Your task to perform on an android device: see tabs open on other devices in the chrome app Image 0: 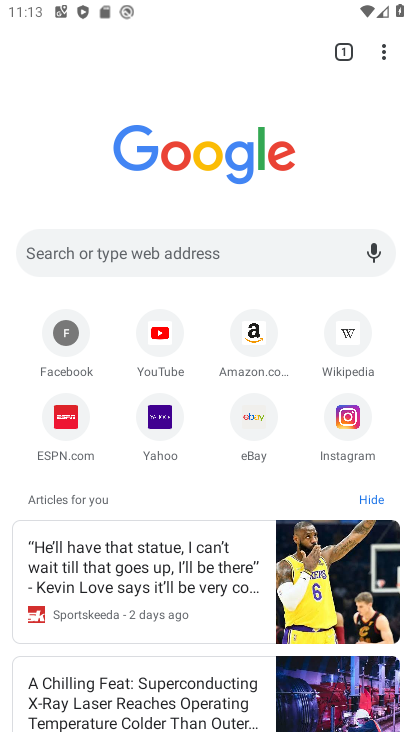
Step 0: click (385, 60)
Your task to perform on an android device: see tabs open on other devices in the chrome app Image 1: 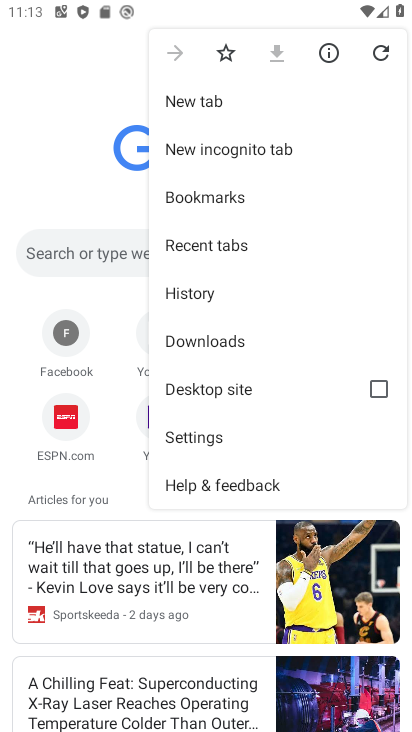
Step 1: click (204, 238)
Your task to perform on an android device: see tabs open on other devices in the chrome app Image 2: 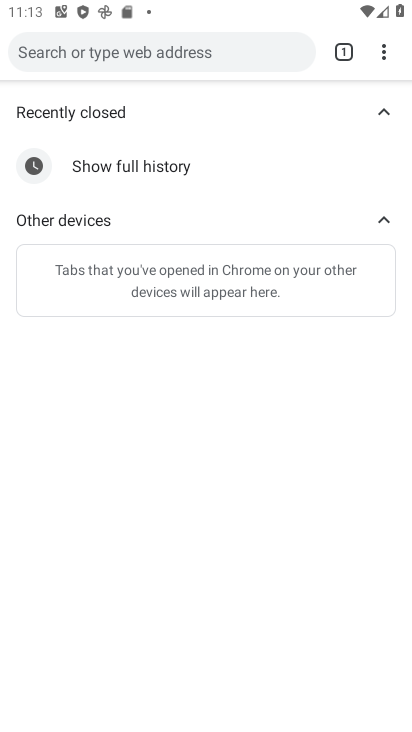
Step 2: task complete